Your task to perform on an android device: move an email to a new category in the gmail app Image 0: 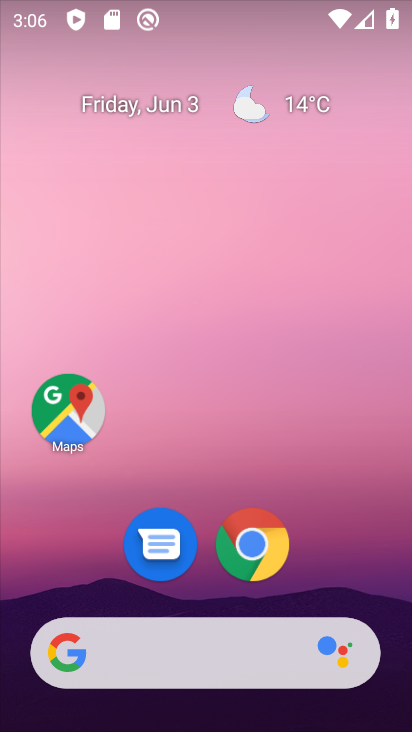
Step 0: drag from (381, 604) to (350, 106)
Your task to perform on an android device: move an email to a new category in the gmail app Image 1: 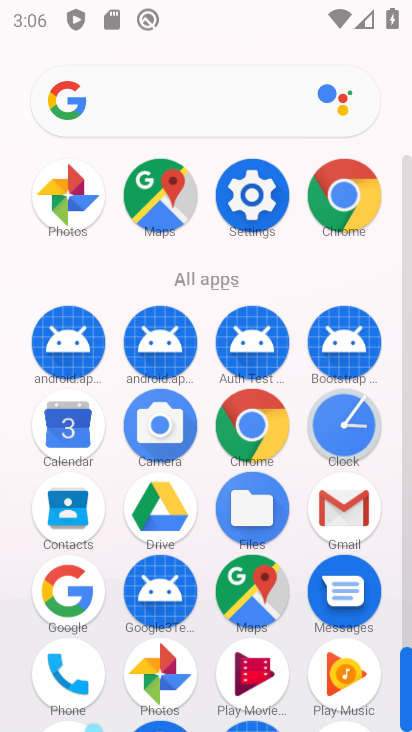
Step 1: click (344, 509)
Your task to perform on an android device: move an email to a new category in the gmail app Image 2: 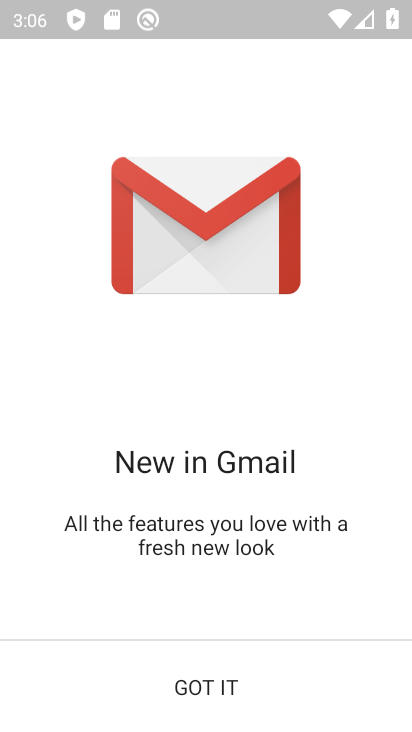
Step 2: click (210, 684)
Your task to perform on an android device: move an email to a new category in the gmail app Image 3: 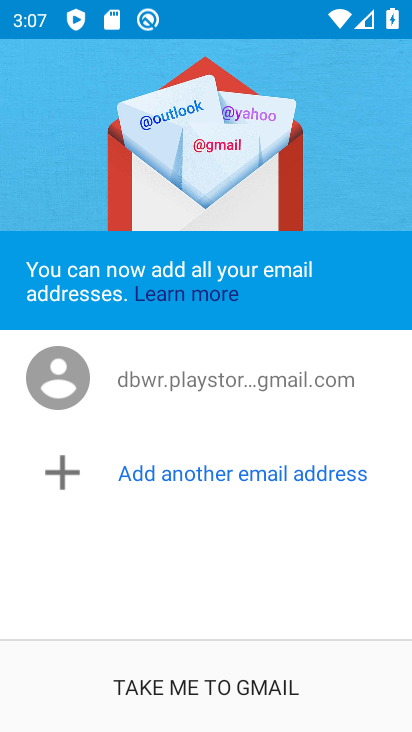
Step 3: click (179, 696)
Your task to perform on an android device: move an email to a new category in the gmail app Image 4: 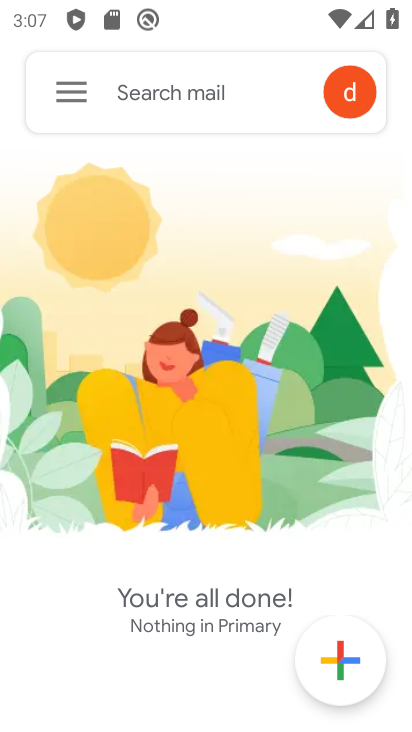
Step 4: click (76, 82)
Your task to perform on an android device: move an email to a new category in the gmail app Image 5: 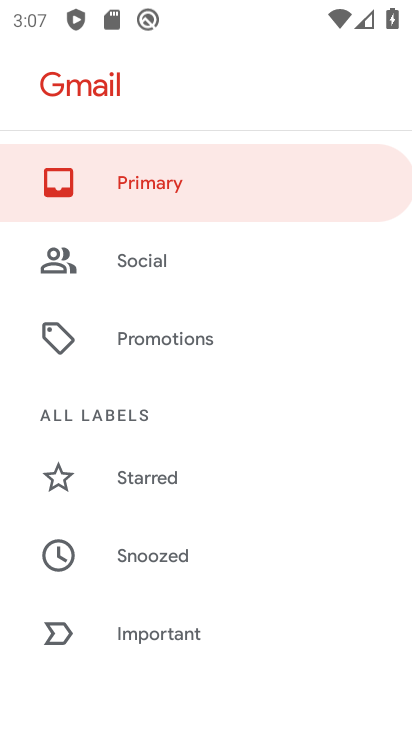
Step 5: drag from (232, 616) to (264, 193)
Your task to perform on an android device: move an email to a new category in the gmail app Image 6: 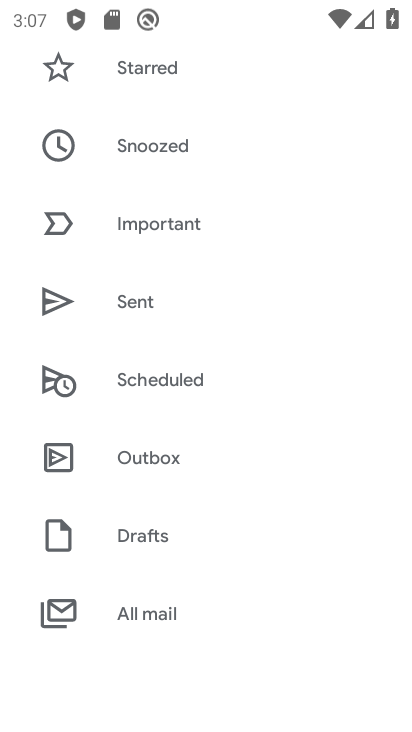
Step 6: drag from (269, 574) to (255, 229)
Your task to perform on an android device: move an email to a new category in the gmail app Image 7: 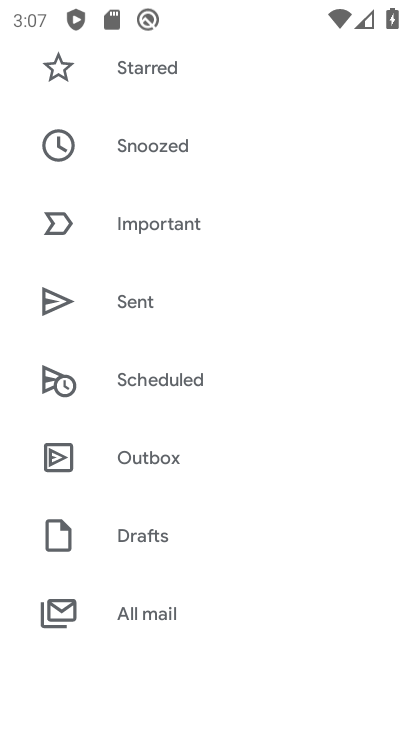
Step 7: click (164, 608)
Your task to perform on an android device: move an email to a new category in the gmail app Image 8: 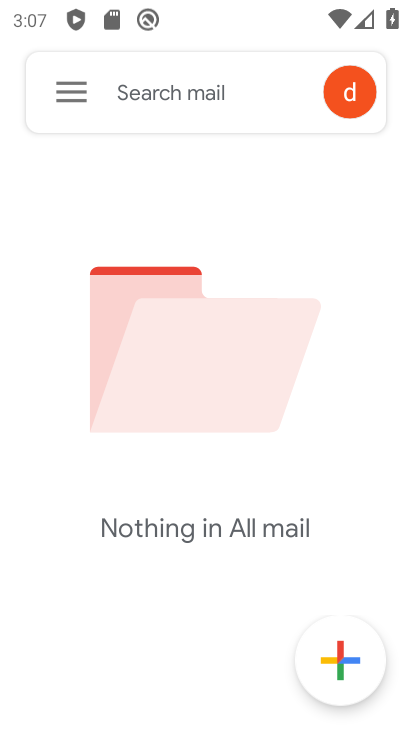
Step 8: task complete